Your task to perform on an android device: turn on improve location accuracy Image 0: 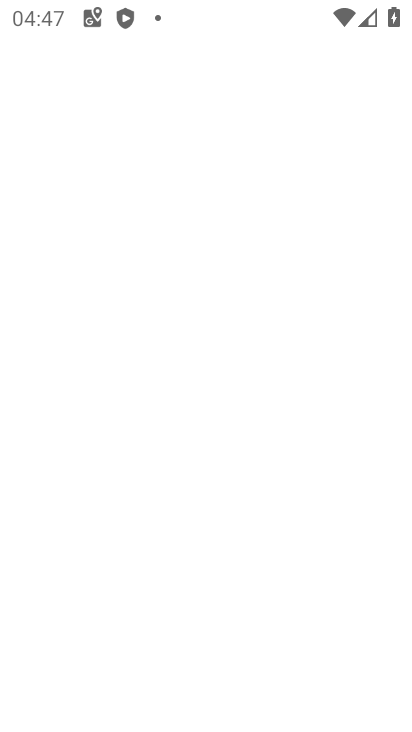
Step 0: drag from (353, 342) to (331, 209)
Your task to perform on an android device: turn on improve location accuracy Image 1: 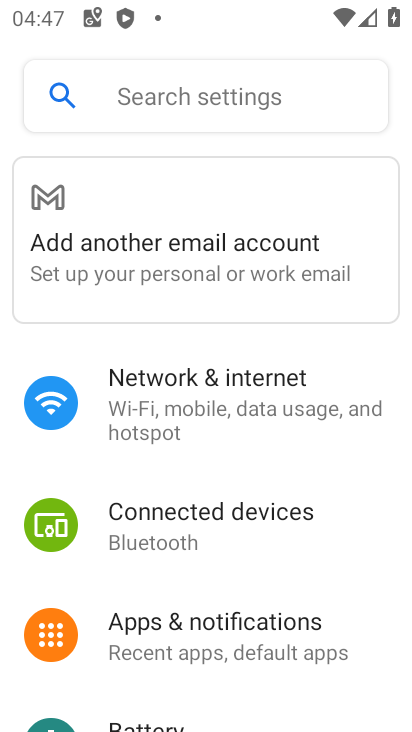
Step 1: press home button
Your task to perform on an android device: turn on improve location accuracy Image 2: 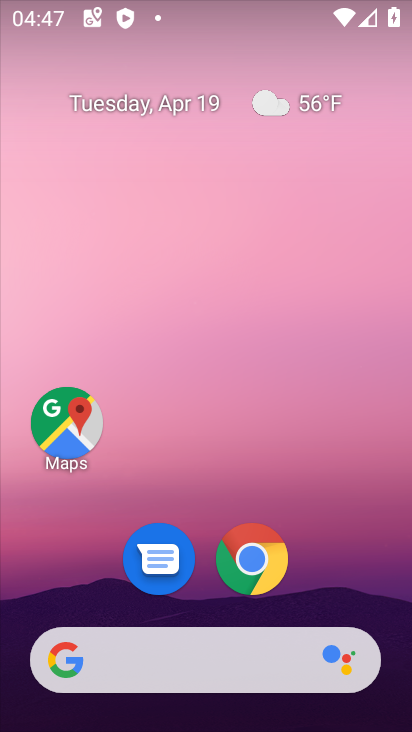
Step 2: drag from (376, 595) to (344, 123)
Your task to perform on an android device: turn on improve location accuracy Image 3: 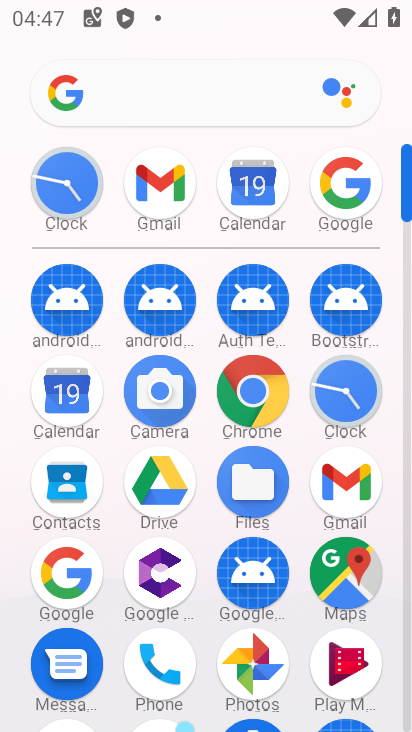
Step 3: drag from (207, 581) to (205, 352)
Your task to perform on an android device: turn on improve location accuracy Image 4: 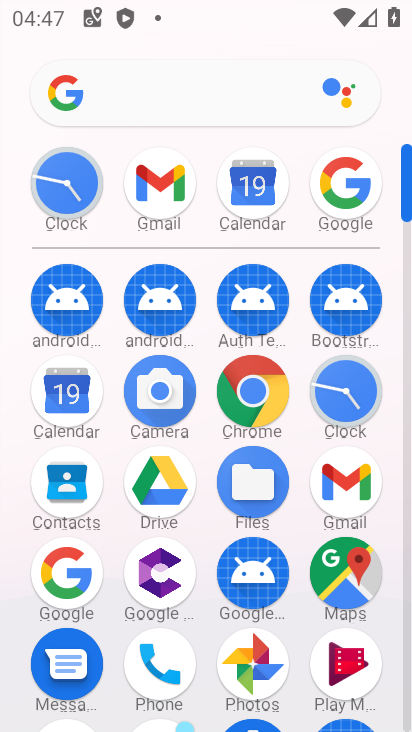
Step 4: drag from (205, 697) to (187, 413)
Your task to perform on an android device: turn on improve location accuracy Image 5: 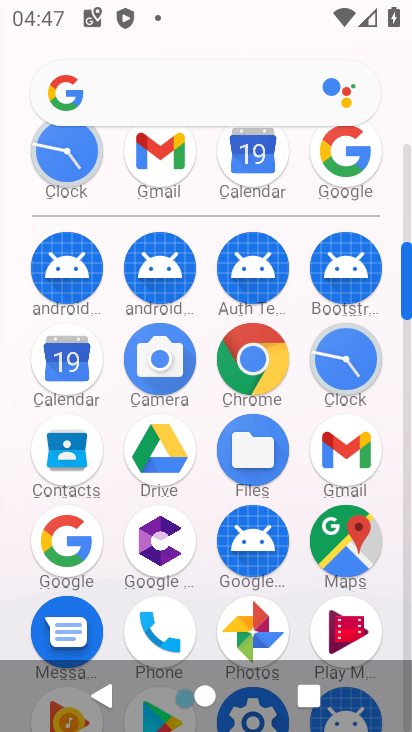
Step 5: drag from (197, 506) to (195, 318)
Your task to perform on an android device: turn on improve location accuracy Image 6: 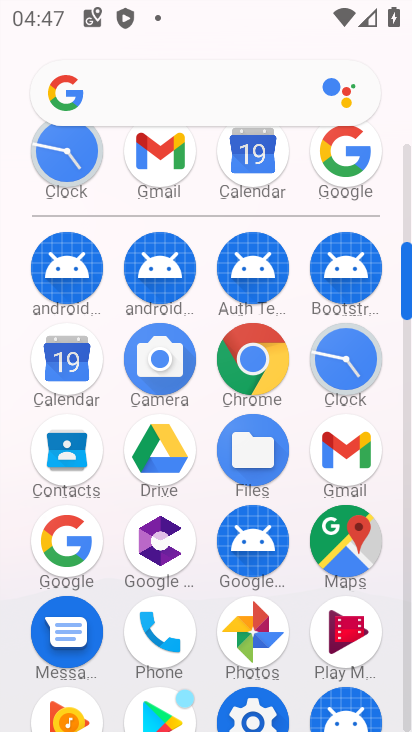
Step 6: click (238, 698)
Your task to perform on an android device: turn on improve location accuracy Image 7: 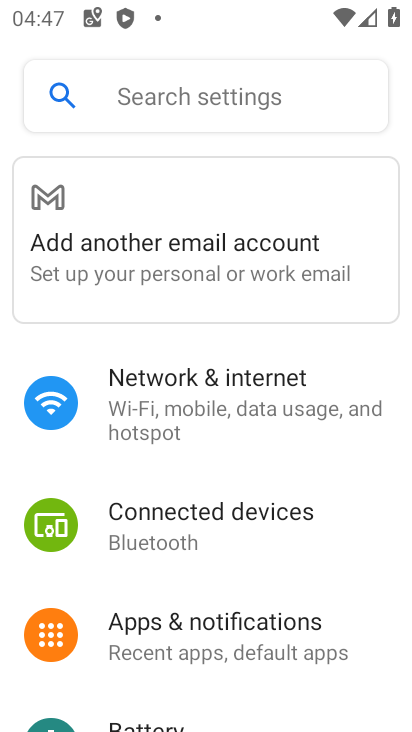
Step 7: drag from (368, 653) to (348, 267)
Your task to perform on an android device: turn on improve location accuracy Image 8: 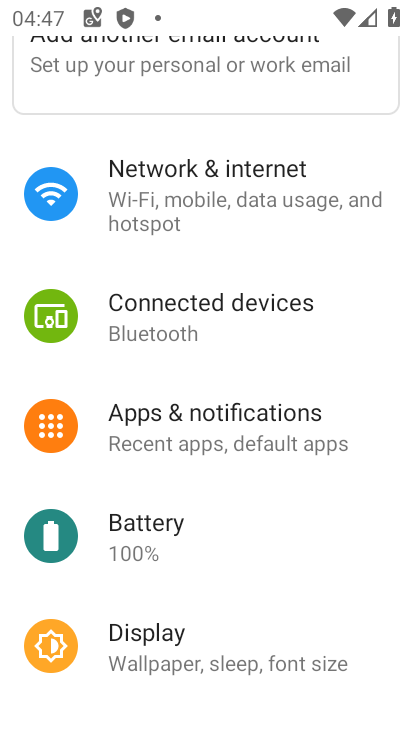
Step 8: drag from (345, 645) to (322, 315)
Your task to perform on an android device: turn on improve location accuracy Image 9: 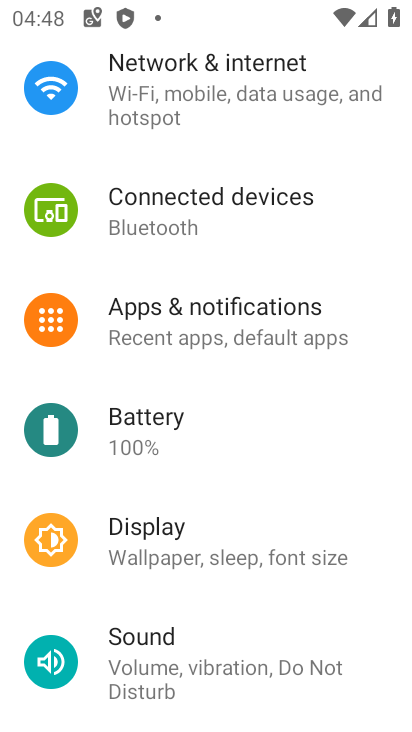
Step 9: drag from (371, 608) to (350, 226)
Your task to perform on an android device: turn on improve location accuracy Image 10: 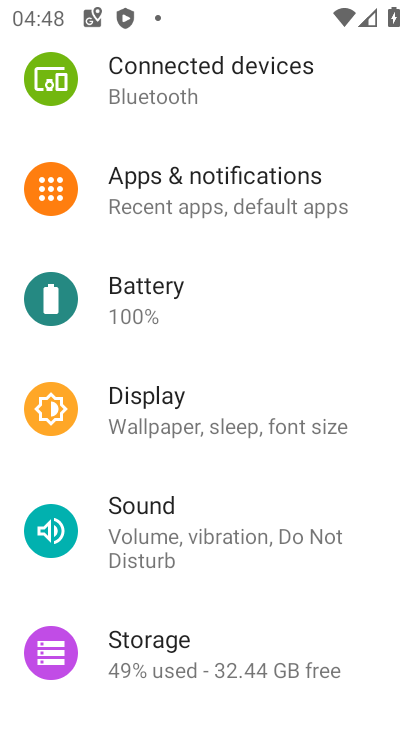
Step 10: drag from (365, 408) to (349, 248)
Your task to perform on an android device: turn on improve location accuracy Image 11: 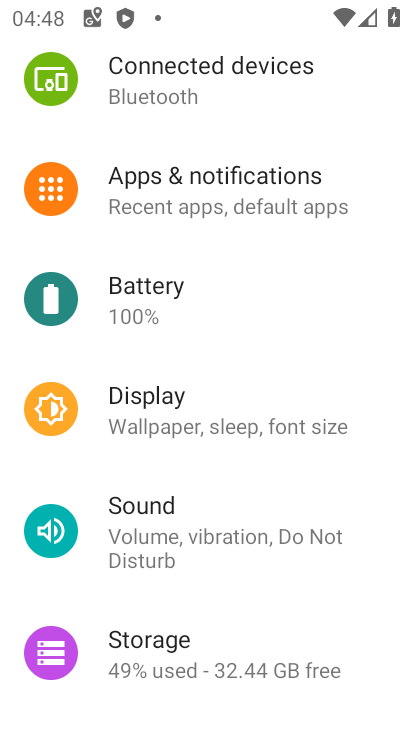
Step 11: drag from (368, 611) to (347, 316)
Your task to perform on an android device: turn on improve location accuracy Image 12: 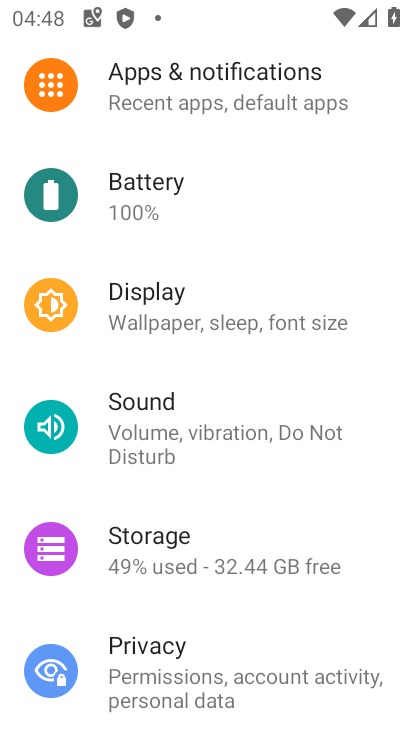
Step 12: drag from (370, 607) to (339, 285)
Your task to perform on an android device: turn on improve location accuracy Image 13: 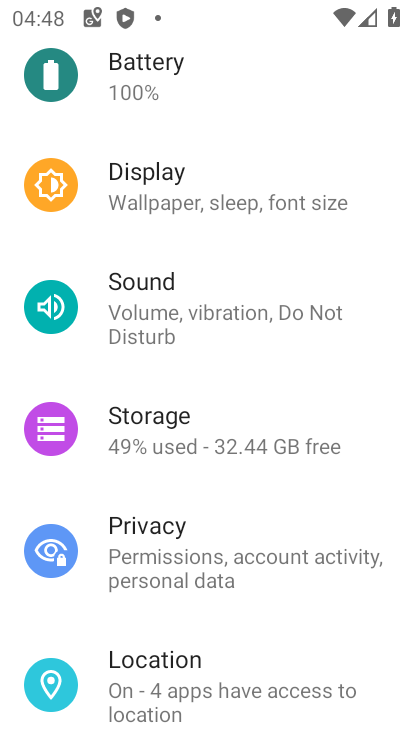
Step 13: drag from (371, 517) to (364, 186)
Your task to perform on an android device: turn on improve location accuracy Image 14: 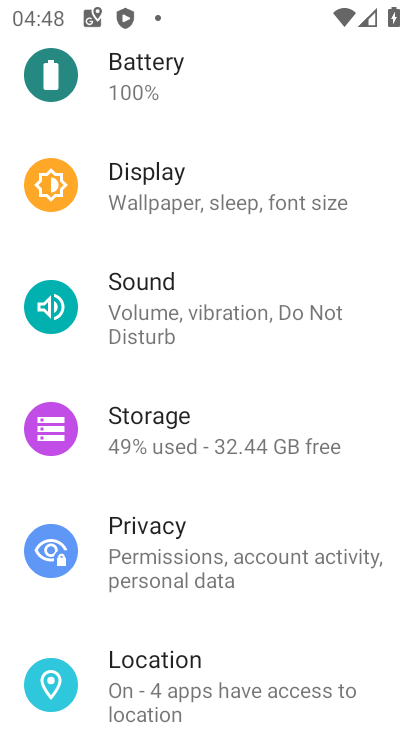
Step 14: click (163, 668)
Your task to perform on an android device: turn on improve location accuracy Image 15: 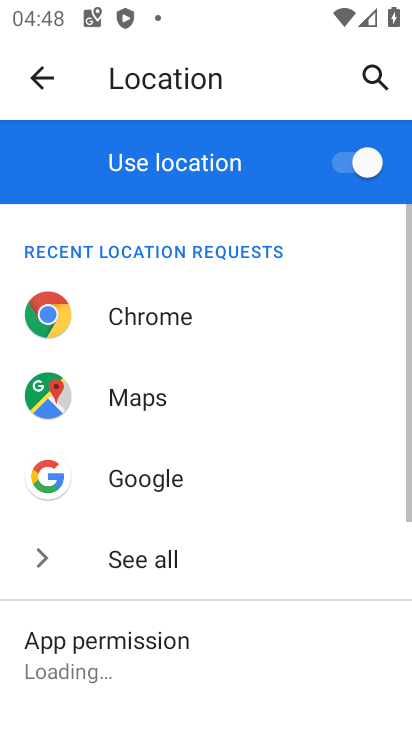
Step 15: drag from (345, 665) to (298, 230)
Your task to perform on an android device: turn on improve location accuracy Image 16: 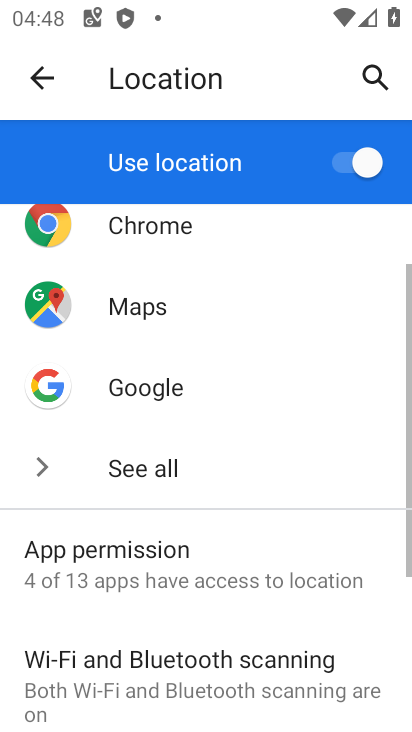
Step 16: drag from (370, 507) to (335, 273)
Your task to perform on an android device: turn on improve location accuracy Image 17: 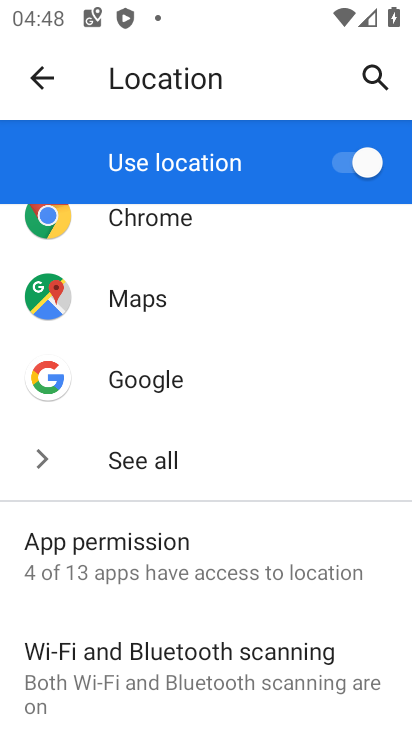
Step 17: click (324, 291)
Your task to perform on an android device: turn on improve location accuracy Image 18: 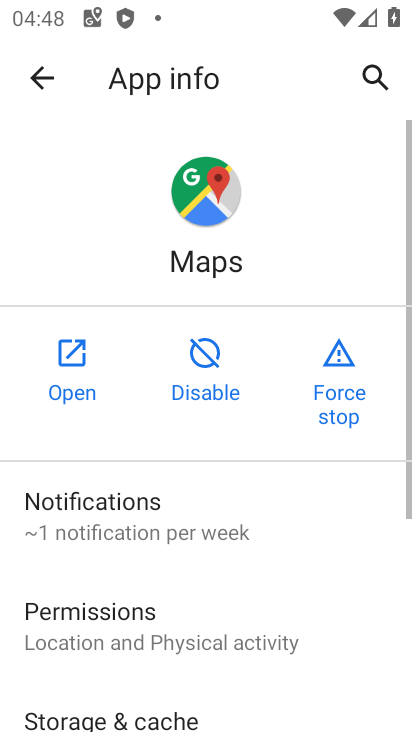
Step 18: drag from (381, 397) to (368, 300)
Your task to perform on an android device: turn on improve location accuracy Image 19: 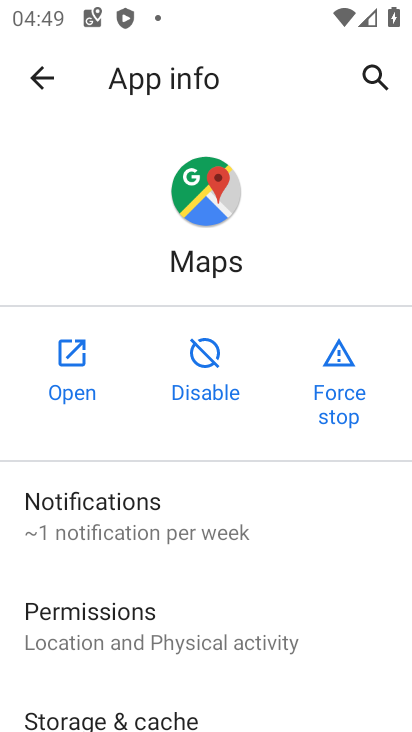
Step 19: click (39, 76)
Your task to perform on an android device: turn on improve location accuracy Image 20: 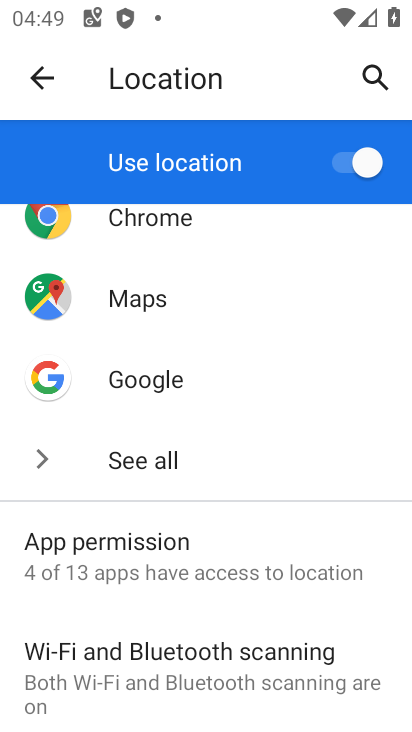
Step 20: drag from (382, 612) to (329, 304)
Your task to perform on an android device: turn on improve location accuracy Image 21: 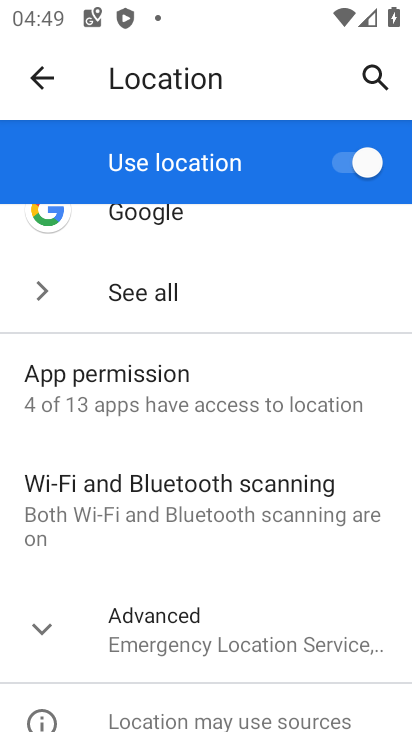
Step 21: drag from (352, 615) to (348, 331)
Your task to perform on an android device: turn on improve location accuracy Image 22: 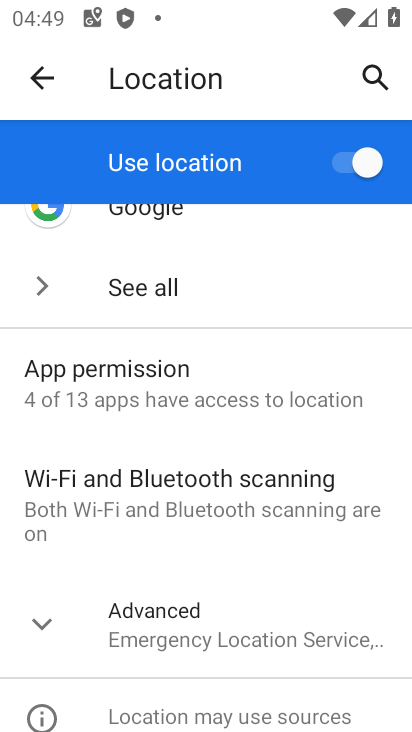
Step 22: drag from (352, 366) to (343, 317)
Your task to perform on an android device: turn on improve location accuracy Image 23: 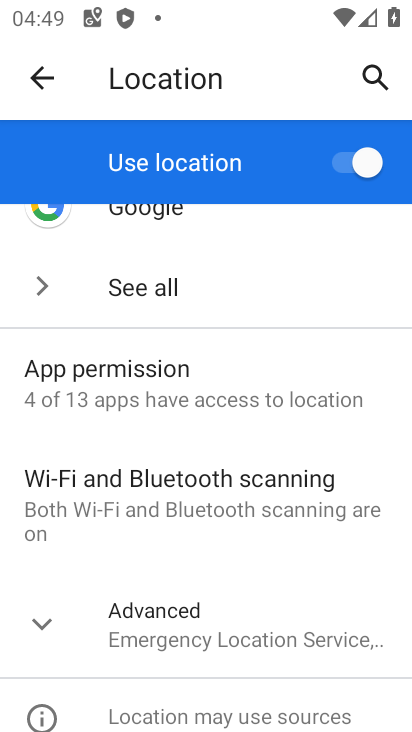
Step 23: drag from (385, 640) to (363, 353)
Your task to perform on an android device: turn on improve location accuracy Image 24: 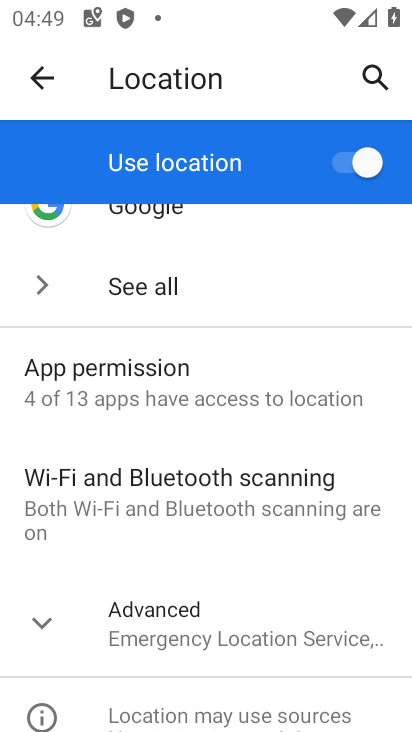
Step 24: drag from (359, 662) to (362, 378)
Your task to perform on an android device: turn on improve location accuracy Image 25: 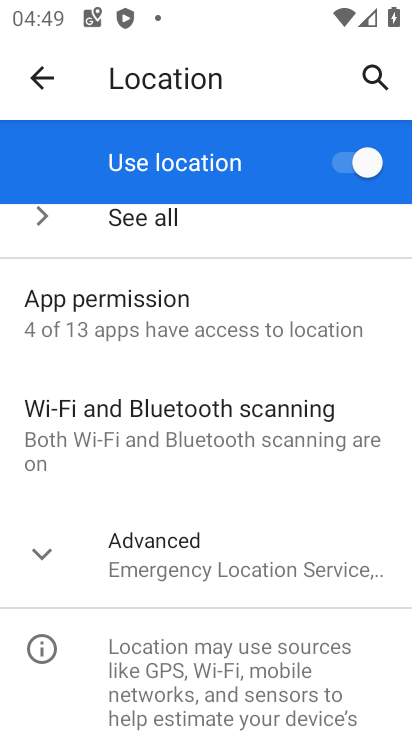
Step 25: drag from (336, 693) to (270, 301)
Your task to perform on an android device: turn on improve location accuracy Image 26: 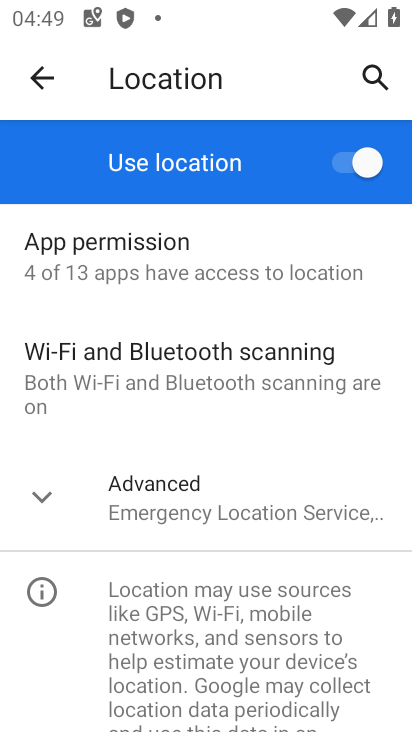
Step 26: drag from (338, 678) to (308, 310)
Your task to perform on an android device: turn on improve location accuracy Image 27: 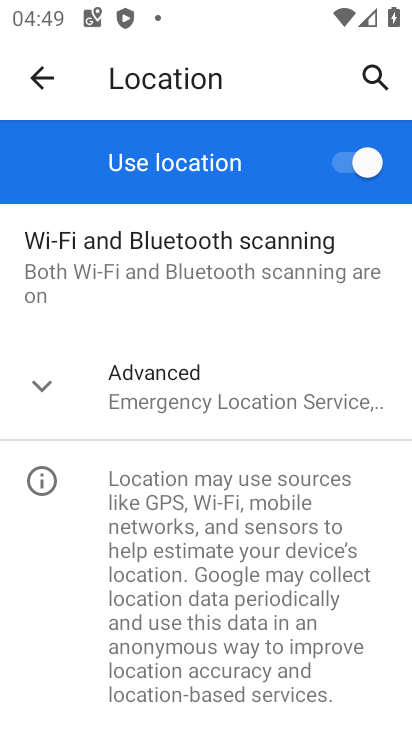
Step 27: click (44, 382)
Your task to perform on an android device: turn on improve location accuracy Image 28: 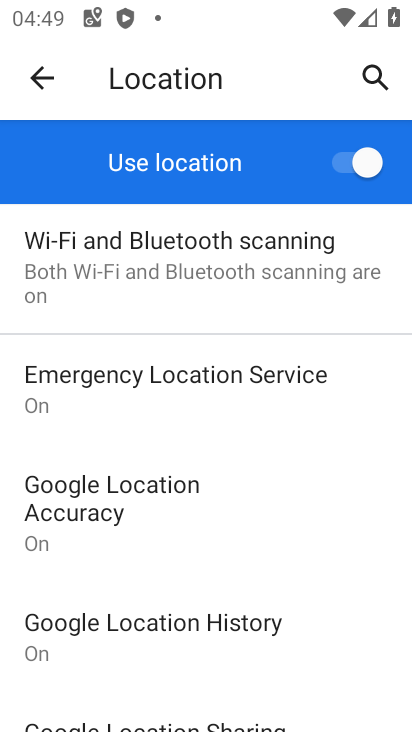
Step 28: drag from (312, 660) to (305, 352)
Your task to perform on an android device: turn on improve location accuracy Image 29: 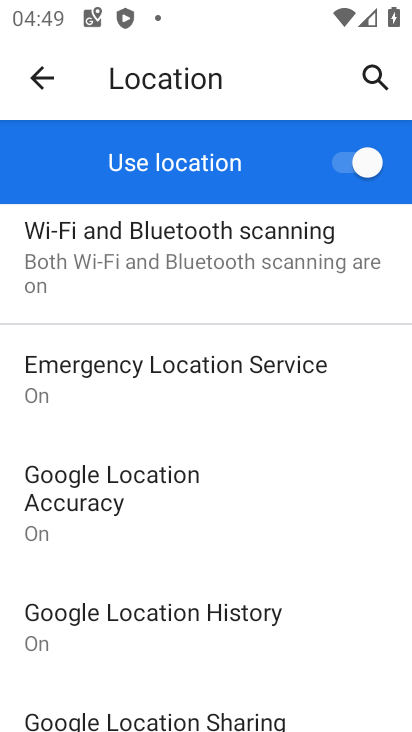
Step 29: drag from (347, 510) to (334, 321)
Your task to perform on an android device: turn on improve location accuracy Image 30: 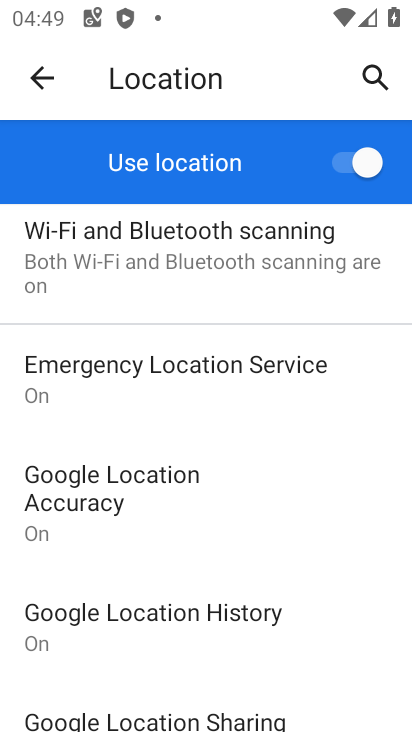
Step 30: drag from (330, 611) to (330, 358)
Your task to perform on an android device: turn on improve location accuracy Image 31: 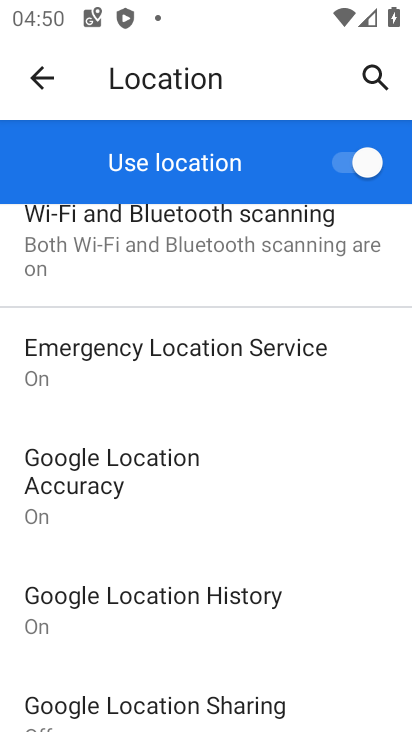
Step 31: click (66, 455)
Your task to perform on an android device: turn on improve location accuracy Image 32: 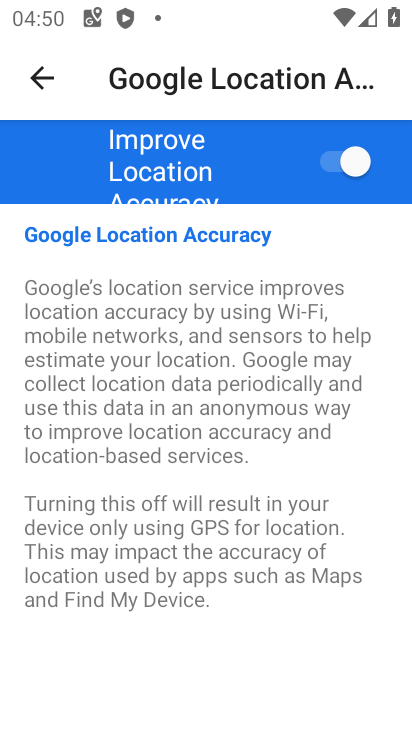
Step 32: task complete